Your task to perform on an android device: See recent photos Image 0: 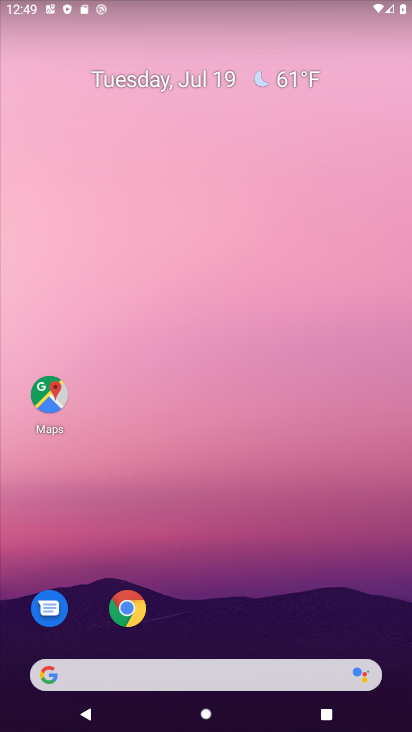
Step 0: drag from (338, 183) to (240, 55)
Your task to perform on an android device: See recent photos Image 1: 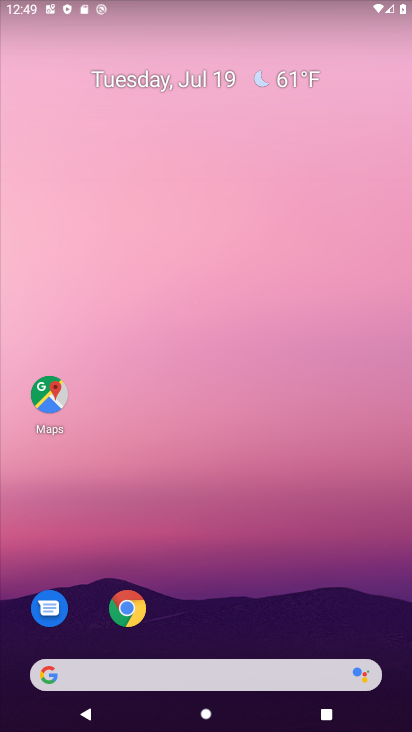
Step 1: drag from (211, 631) to (348, 24)
Your task to perform on an android device: See recent photos Image 2: 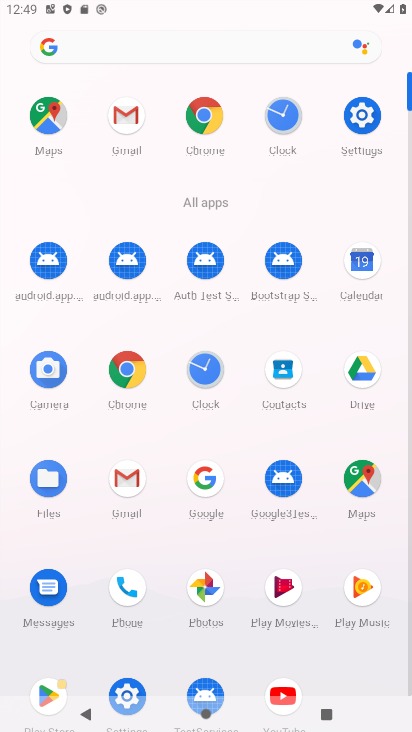
Step 2: click (207, 594)
Your task to perform on an android device: See recent photos Image 3: 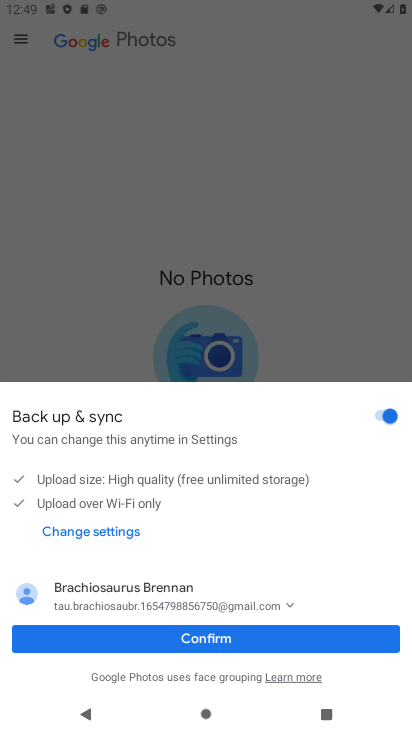
Step 3: click (175, 627)
Your task to perform on an android device: See recent photos Image 4: 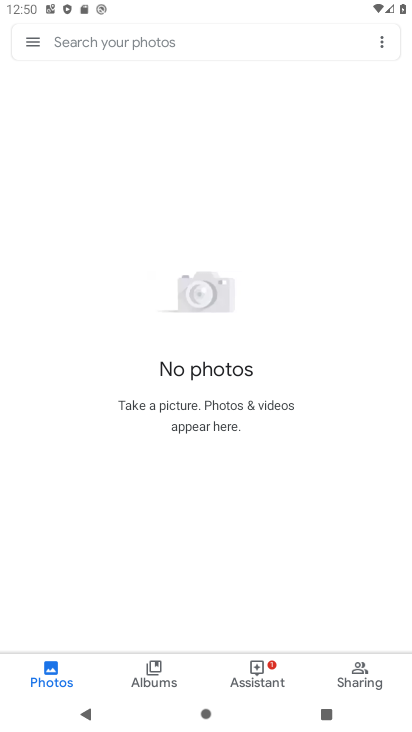
Step 4: task complete